Your task to perform on an android device: Open Google Maps Image 0: 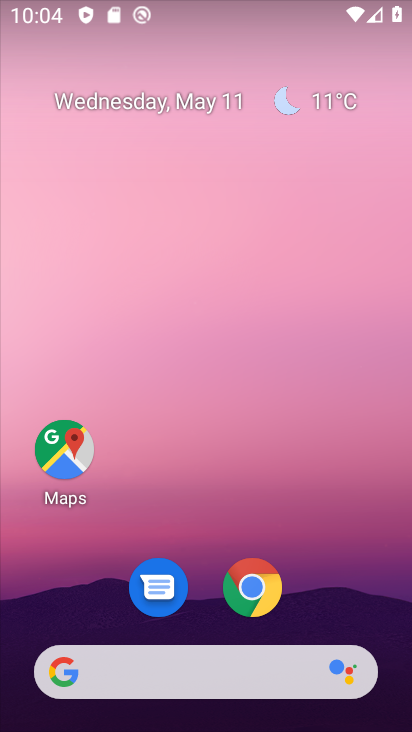
Step 0: drag from (256, 705) to (190, 220)
Your task to perform on an android device: Open Google Maps Image 1: 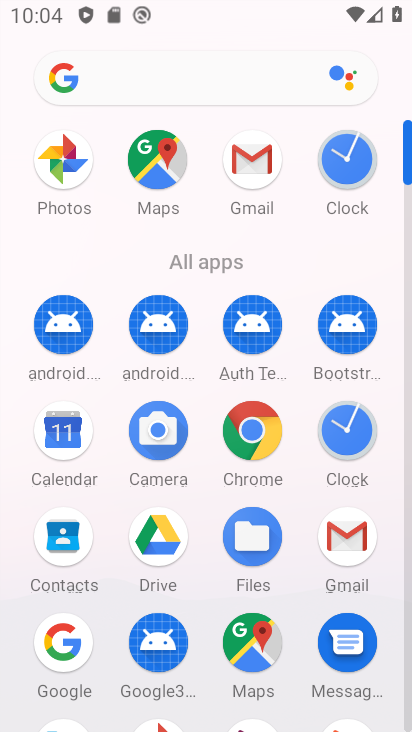
Step 1: click (158, 182)
Your task to perform on an android device: Open Google Maps Image 2: 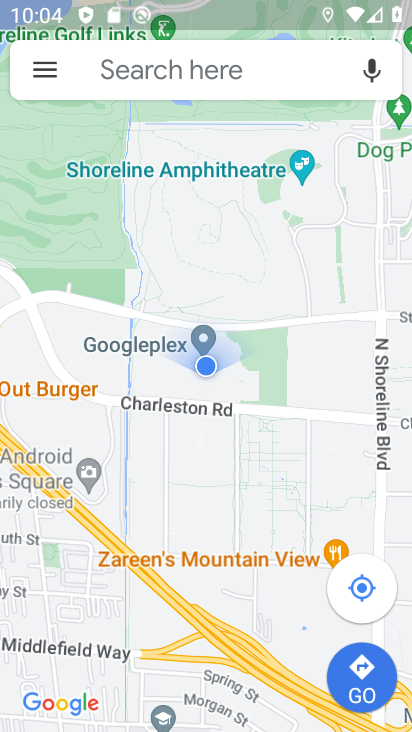
Step 2: click (166, 275)
Your task to perform on an android device: Open Google Maps Image 3: 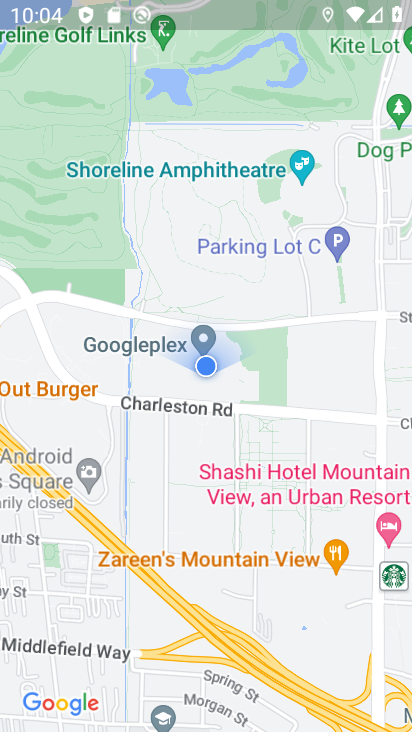
Step 3: click (337, 549)
Your task to perform on an android device: Open Google Maps Image 4: 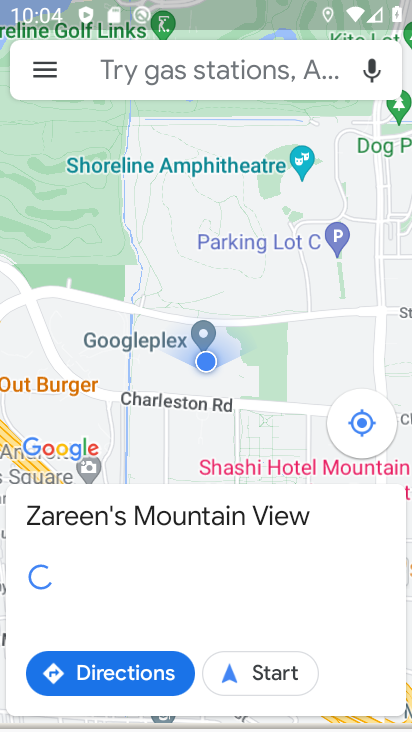
Step 4: click (370, 587)
Your task to perform on an android device: Open Google Maps Image 5: 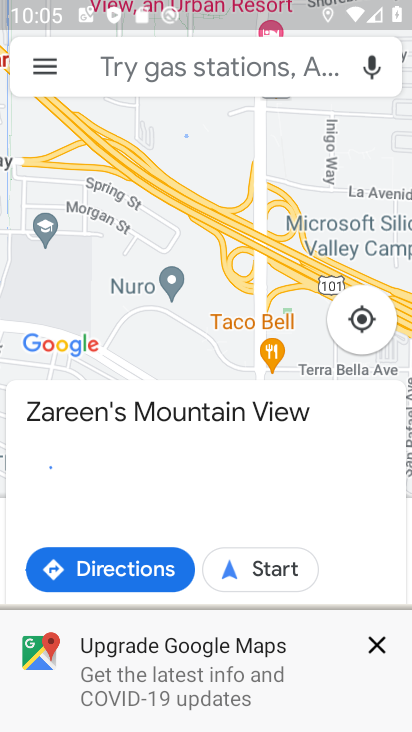
Step 5: click (362, 322)
Your task to perform on an android device: Open Google Maps Image 6: 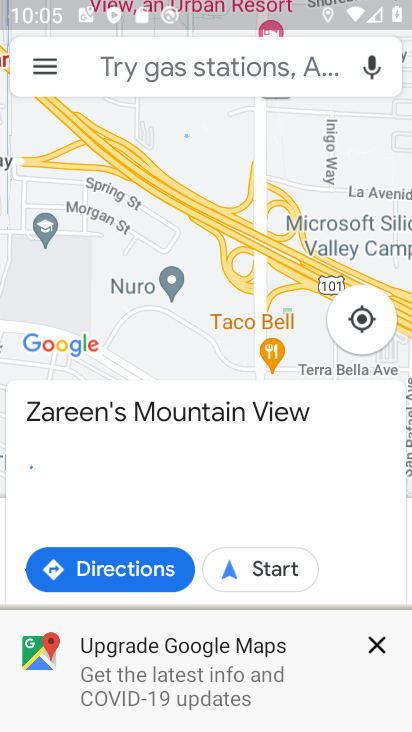
Step 6: click (380, 644)
Your task to perform on an android device: Open Google Maps Image 7: 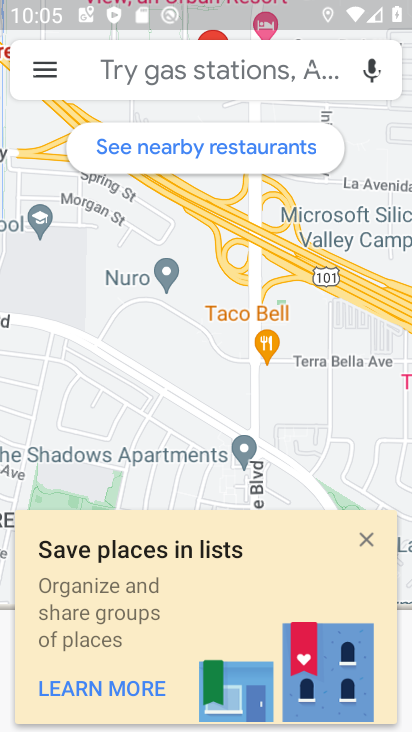
Step 7: task complete